Your task to perform on an android device: see tabs open on other devices in the chrome app Image 0: 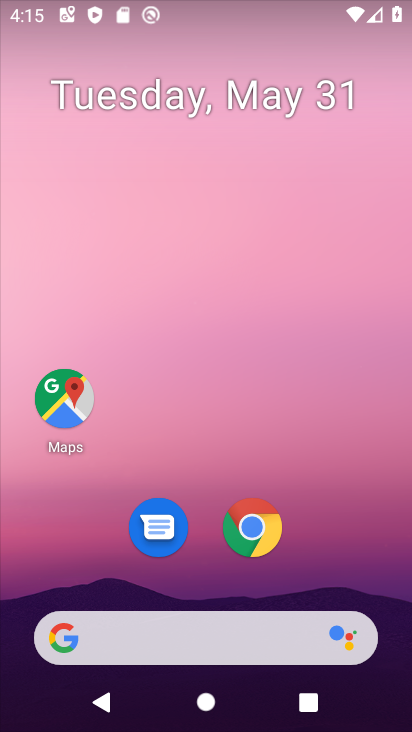
Step 0: drag from (353, 529) to (217, 9)
Your task to perform on an android device: see tabs open on other devices in the chrome app Image 1: 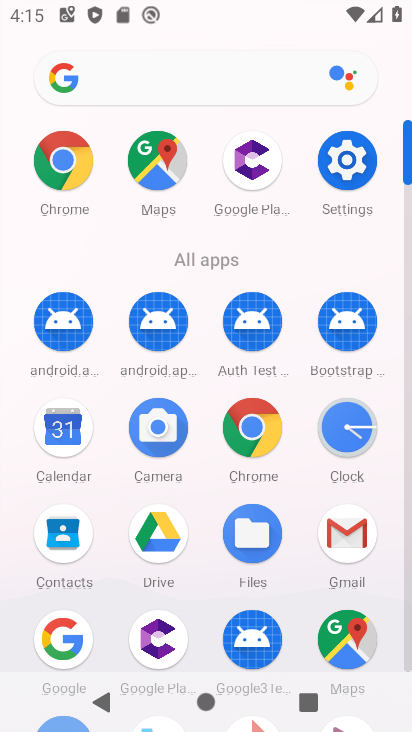
Step 1: drag from (20, 525) to (0, 214)
Your task to perform on an android device: see tabs open on other devices in the chrome app Image 2: 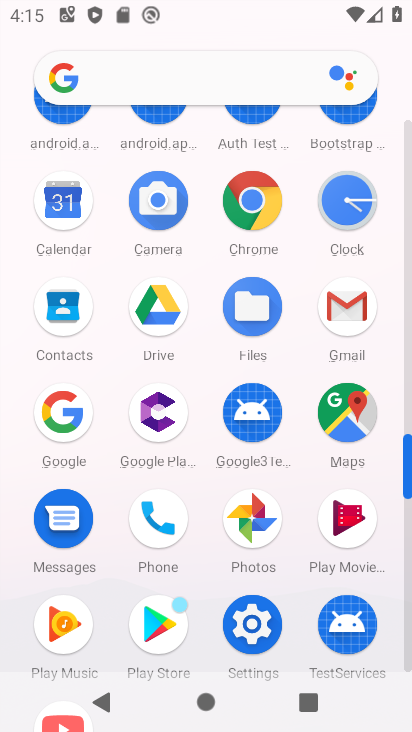
Step 2: click (249, 197)
Your task to perform on an android device: see tabs open on other devices in the chrome app Image 3: 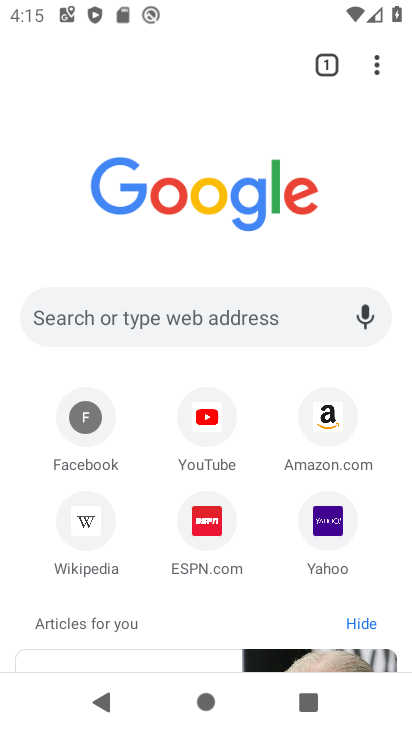
Step 3: task complete